Your task to perform on an android device: Go to ESPN.com Image 0: 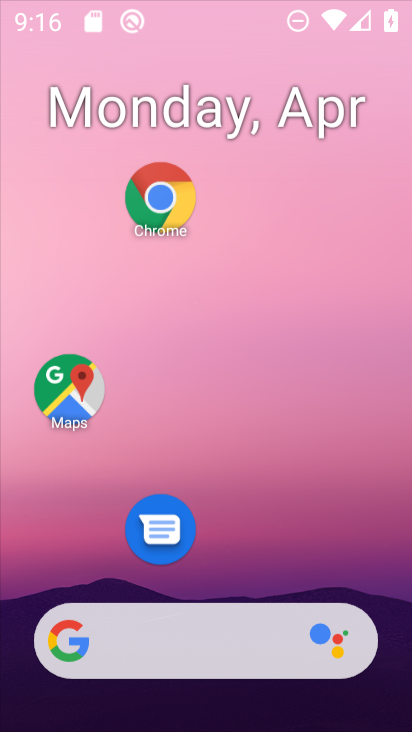
Step 0: click (296, 63)
Your task to perform on an android device: Go to ESPN.com Image 1: 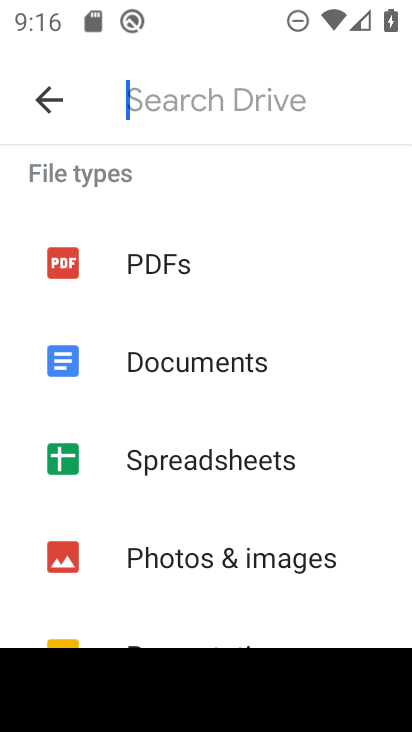
Step 1: press back button
Your task to perform on an android device: Go to ESPN.com Image 2: 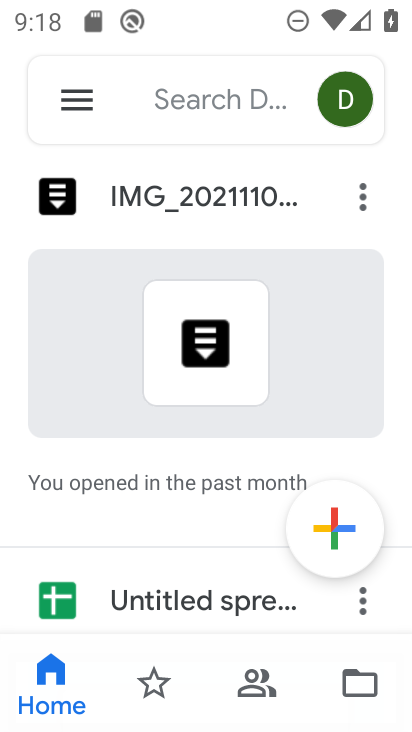
Step 2: press back button
Your task to perform on an android device: Go to ESPN.com Image 3: 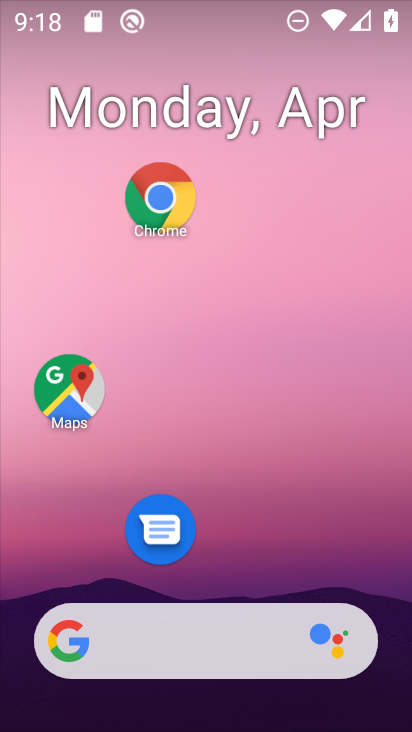
Step 3: click (172, 192)
Your task to perform on an android device: Go to ESPN.com Image 4: 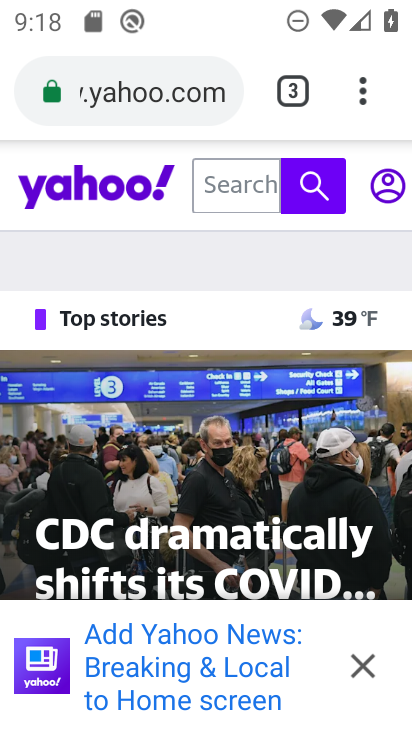
Step 4: click (292, 84)
Your task to perform on an android device: Go to ESPN.com Image 5: 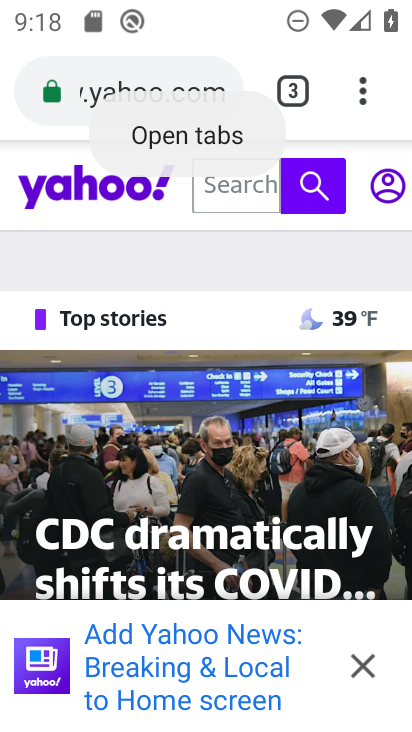
Step 5: click (183, 138)
Your task to perform on an android device: Go to ESPN.com Image 6: 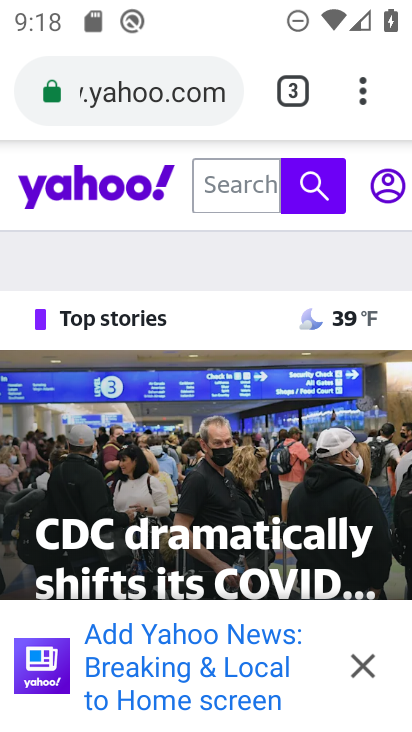
Step 6: click (302, 89)
Your task to perform on an android device: Go to ESPN.com Image 7: 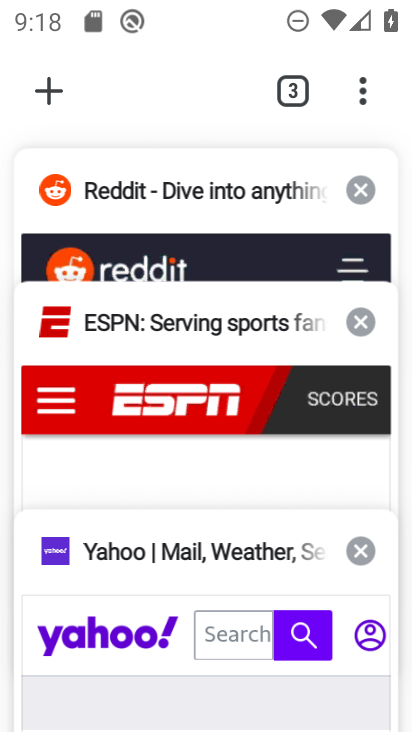
Step 7: click (33, 77)
Your task to perform on an android device: Go to ESPN.com Image 8: 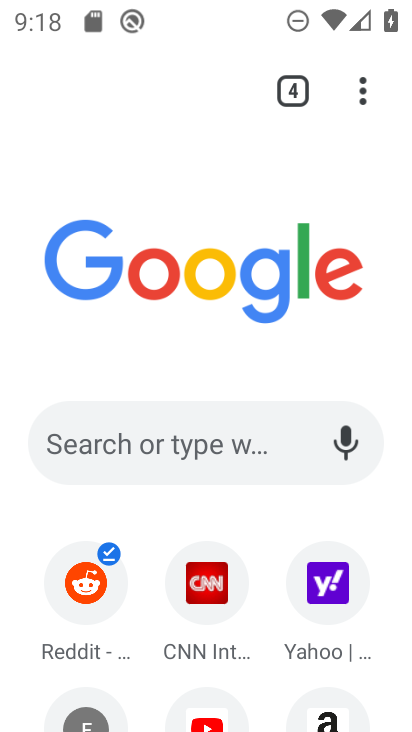
Step 8: click (202, 692)
Your task to perform on an android device: Go to ESPN.com Image 9: 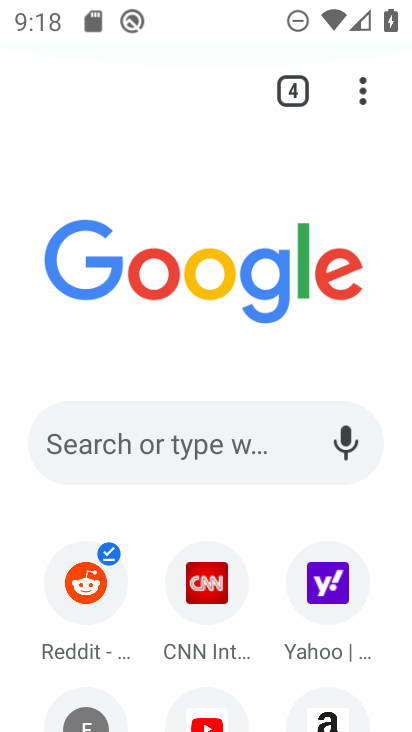
Step 9: click (288, 82)
Your task to perform on an android device: Go to ESPN.com Image 10: 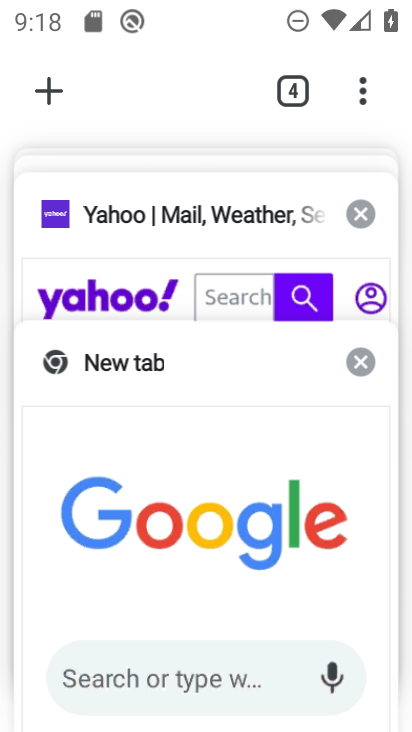
Step 10: click (48, 83)
Your task to perform on an android device: Go to ESPN.com Image 11: 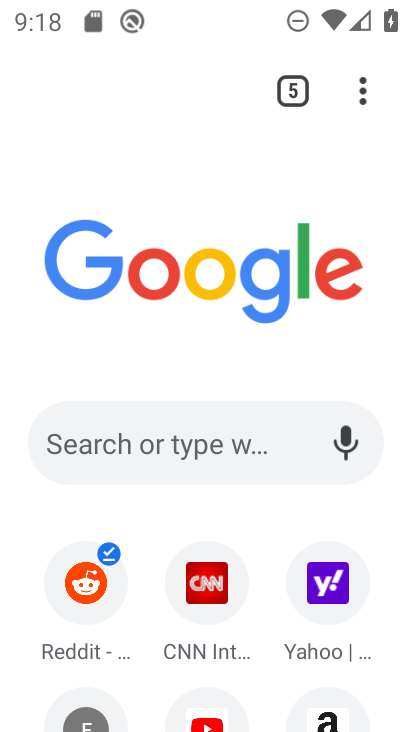
Step 11: click (185, 436)
Your task to perform on an android device: Go to ESPN.com Image 12: 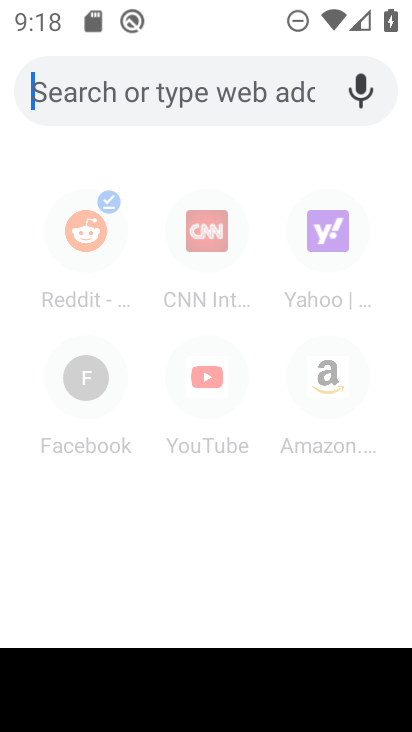
Step 12: type "espn"
Your task to perform on an android device: Go to ESPN.com Image 13: 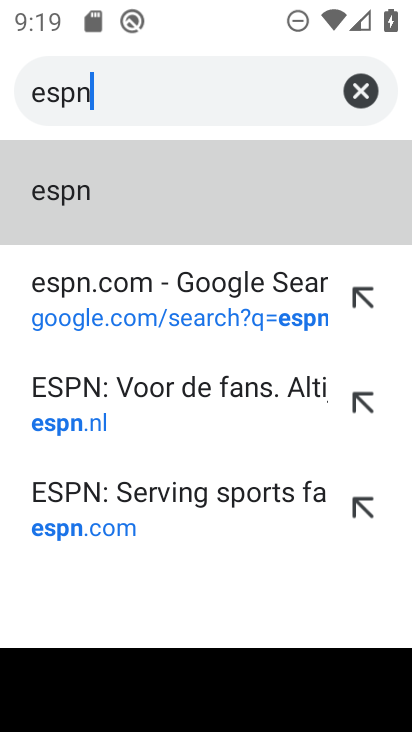
Step 13: click (138, 287)
Your task to perform on an android device: Go to ESPN.com Image 14: 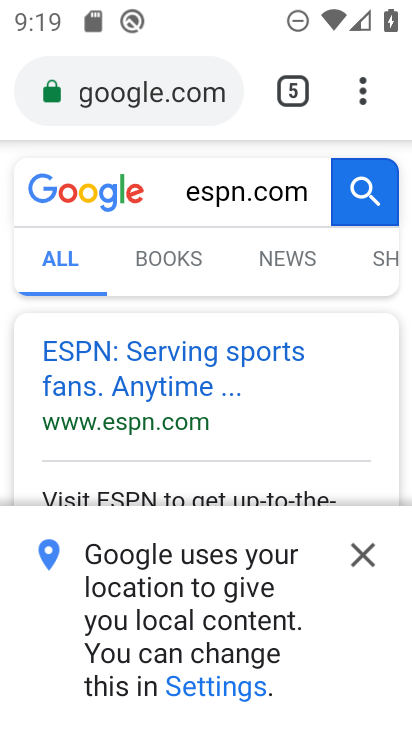
Step 14: click (360, 553)
Your task to perform on an android device: Go to ESPN.com Image 15: 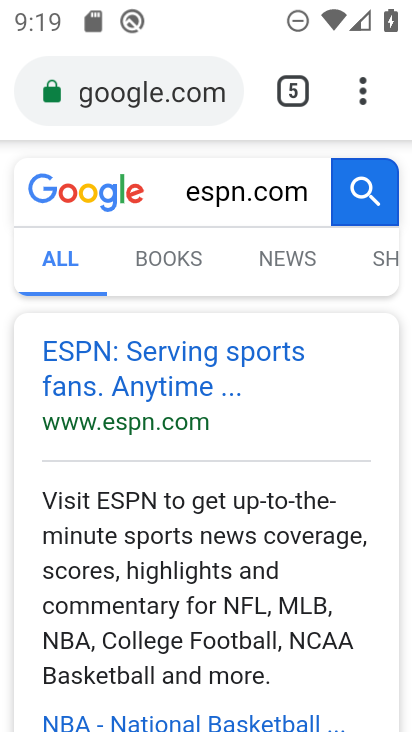
Step 15: drag from (198, 595) to (237, 416)
Your task to perform on an android device: Go to ESPN.com Image 16: 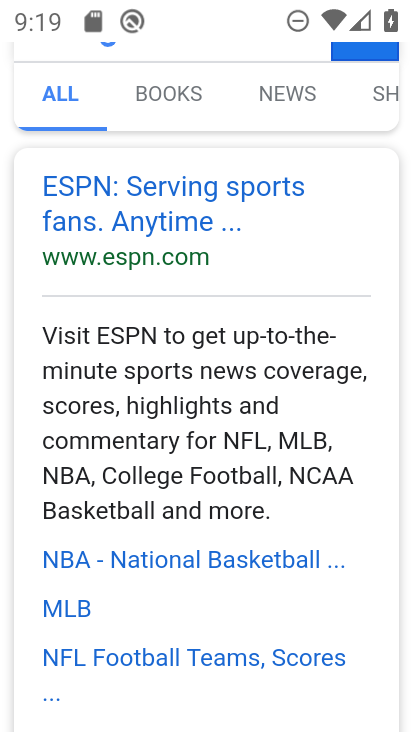
Step 16: click (161, 215)
Your task to perform on an android device: Go to ESPN.com Image 17: 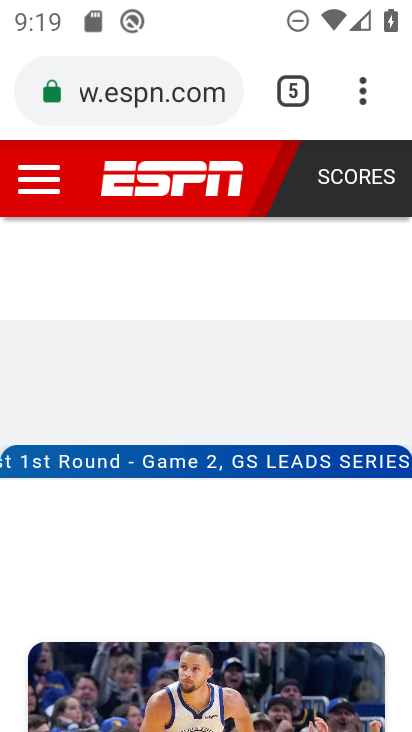
Step 17: task complete